Your task to perform on an android device: What's the weather today? Image 0: 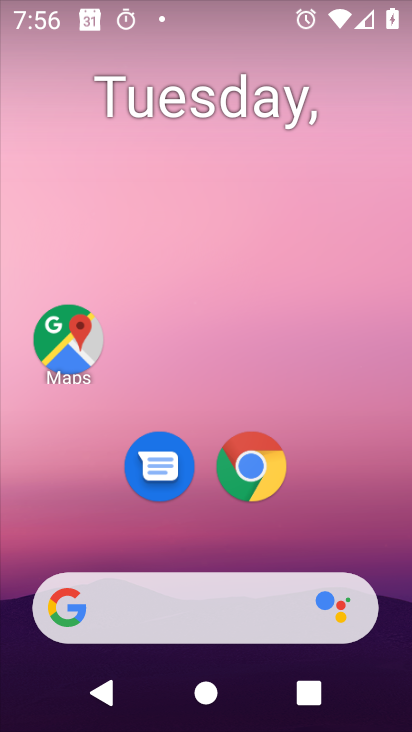
Step 0: click (199, 603)
Your task to perform on an android device: What's the weather today? Image 1: 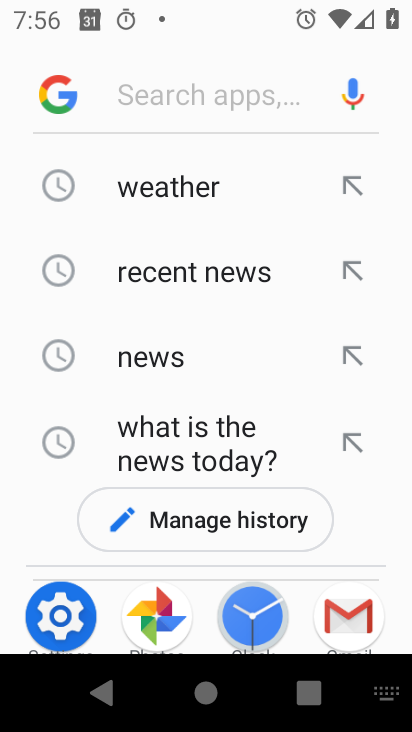
Step 1: click (139, 193)
Your task to perform on an android device: What's the weather today? Image 2: 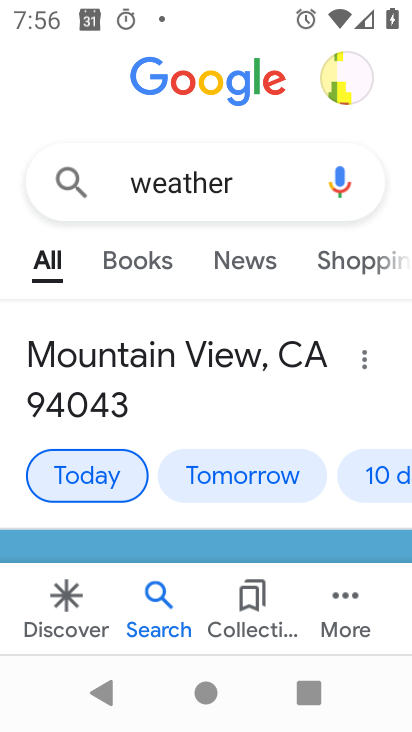
Step 2: task complete